Your task to perform on an android device: change keyboard looks Image 0: 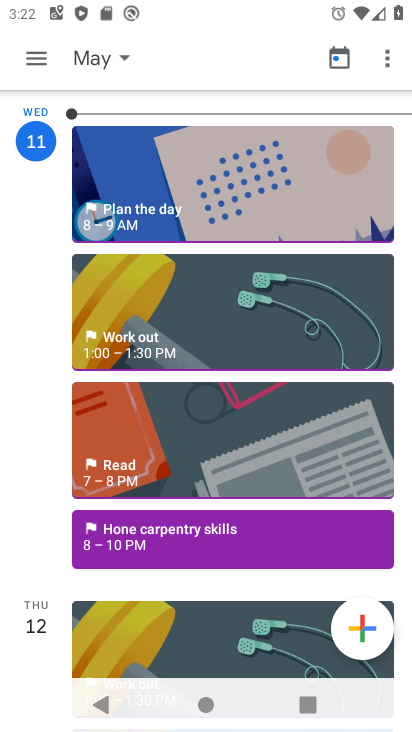
Step 0: press home button
Your task to perform on an android device: change keyboard looks Image 1: 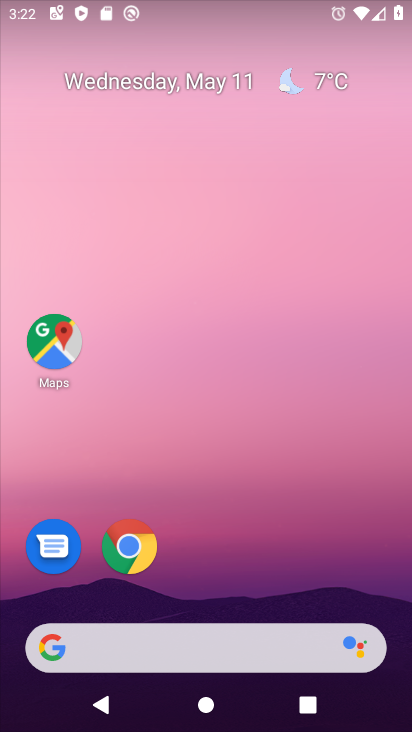
Step 1: drag from (244, 591) to (246, 0)
Your task to perform on an android device: change keyboard looks Image 2: 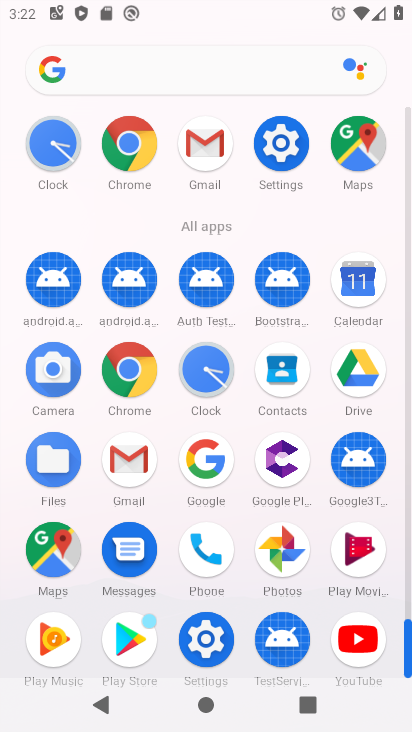
Step 2: click (290, 133)
Your task to perform on an android device: change keyboard looks Image 3: 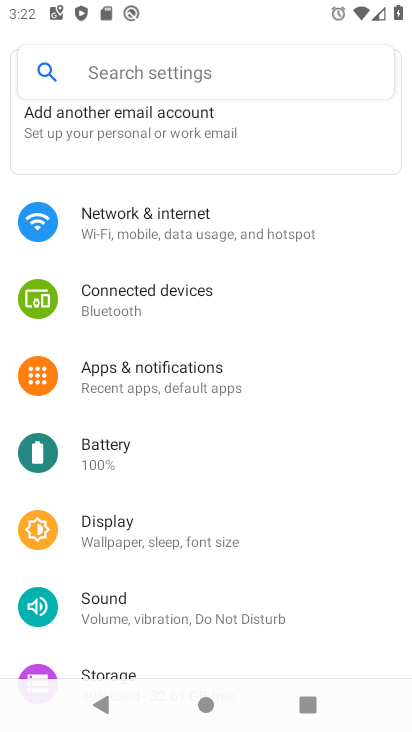
Step 3: drag from (164, 673) to (252, 102)
Your task to perform on an android device: change keyboard looks Image 4: 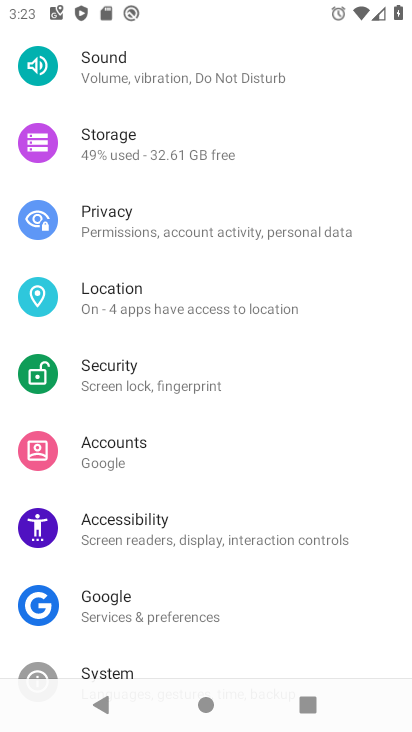
Step 4: drag from (277, 621) to (274, 196)
Your task to perform on an android device: change keyboard looks Image 5: 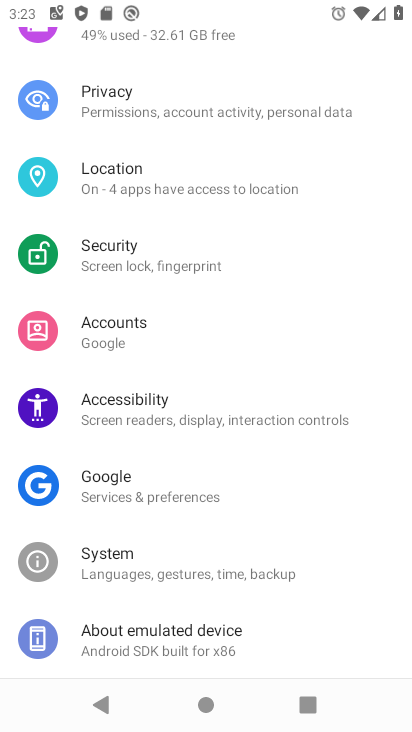
Step 5: click (163, 574)
Your task to perform on an android device: change keyboard looks Image 6: 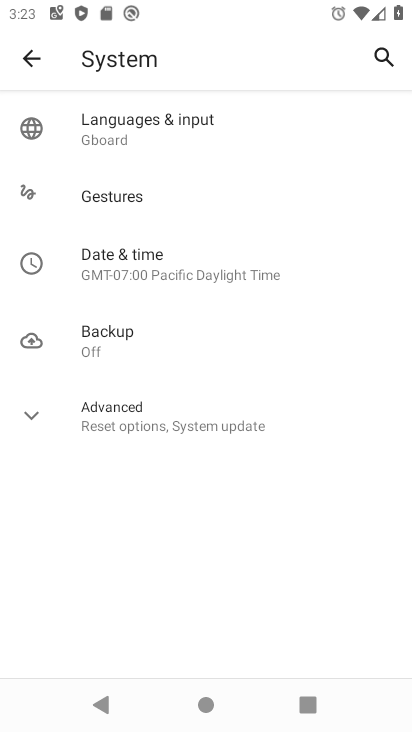
Step 6: click (146, 144)
Your task to perform on an android device: change keyboard looks Image 7: 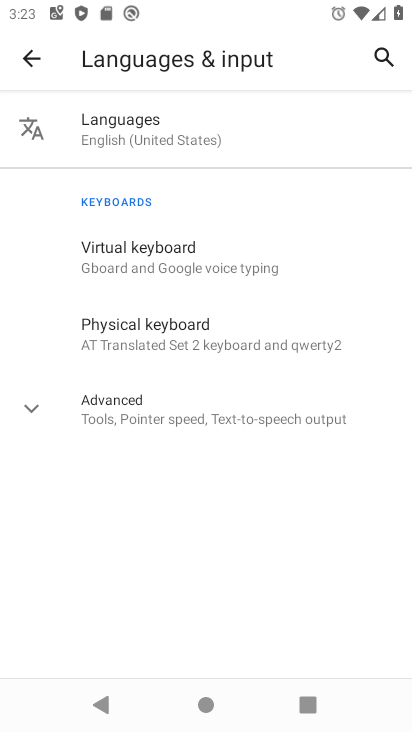
Step 7: click (163, 251)
Your task to perform on an android device: change keyboard looks Image 8: 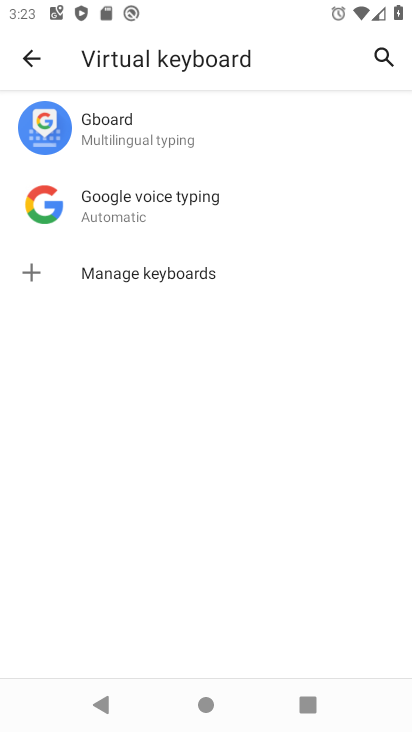
Step 8: click (167, 140)
Your task to perform on an android device: change keyboard looks Image 9: 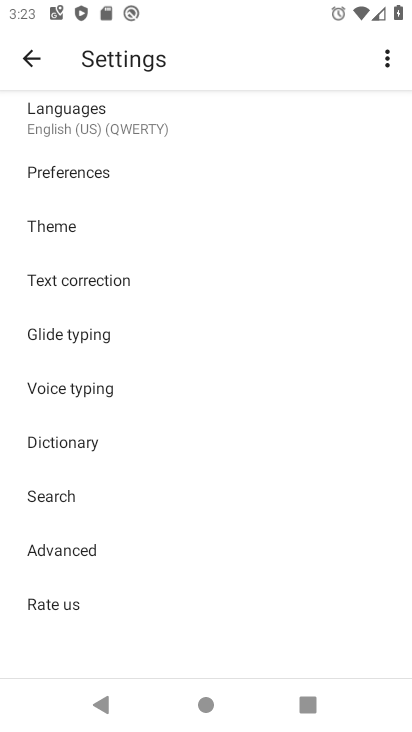
Step 9: click (97, 230)
Your task to perform on an android device: change keyboard looks Image 10: 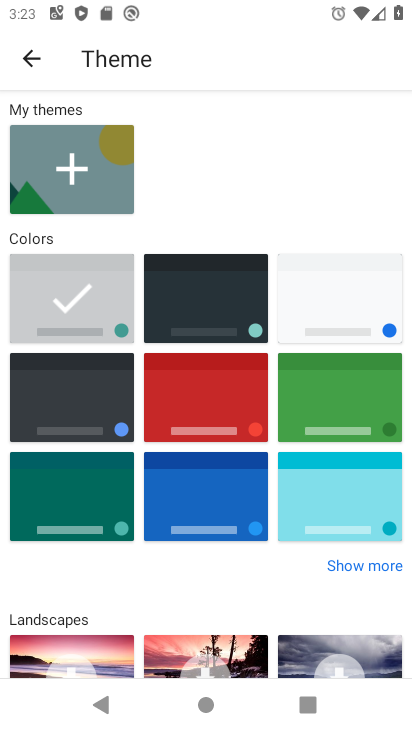
Step 10: click (321, 388)
Your task to perform on an android device: change keyboard looks Image 11: 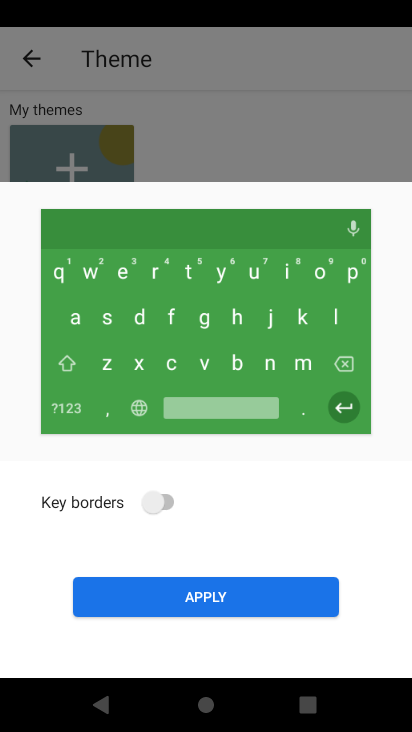
Step 11: click (194, 601)
Your task to perform on an android device: change keyboard looks Image 12: 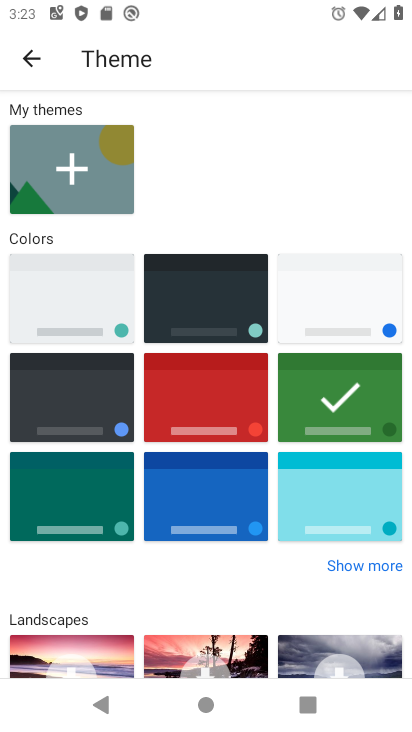
Step 12: task complete